Your task to perform on an android device: all mails in gmail Image 0: 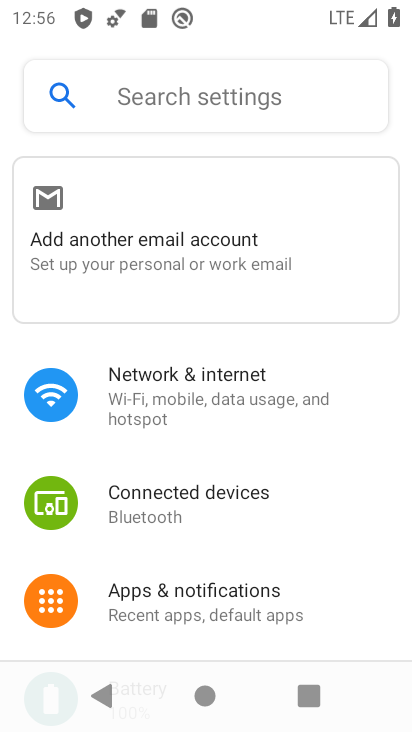
Step 0: press home button
Your task to perform on an android device: all mails in gmail Image 1: 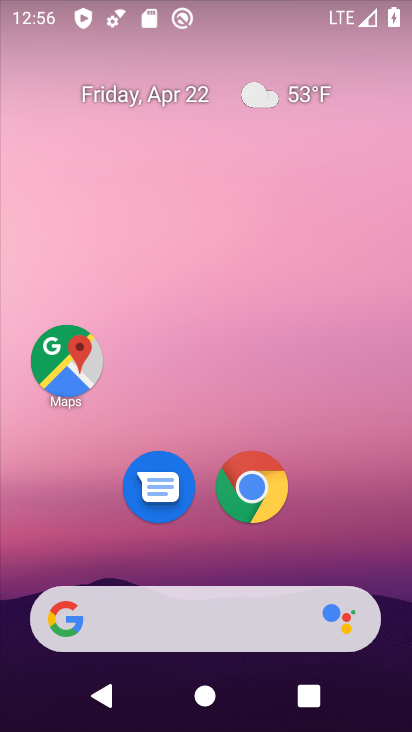
Step 1: drag from (182, 555) to (182, 64)
Your task to perform on an android device: all mails in gmail Image 2: 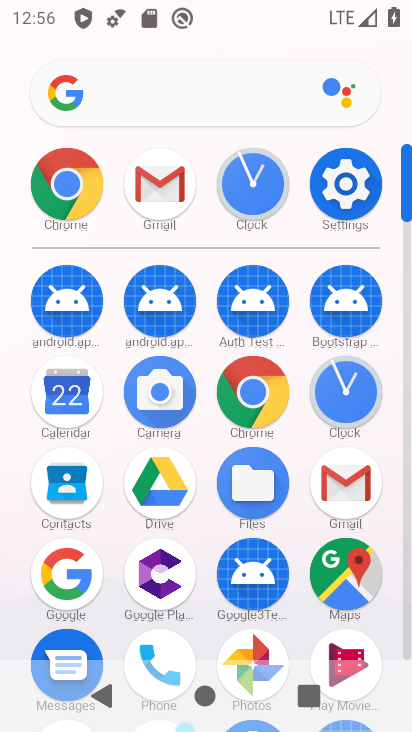
Step 2: click (135, 183)
Your task to perform on an android device: all mails in gmail Image 3: 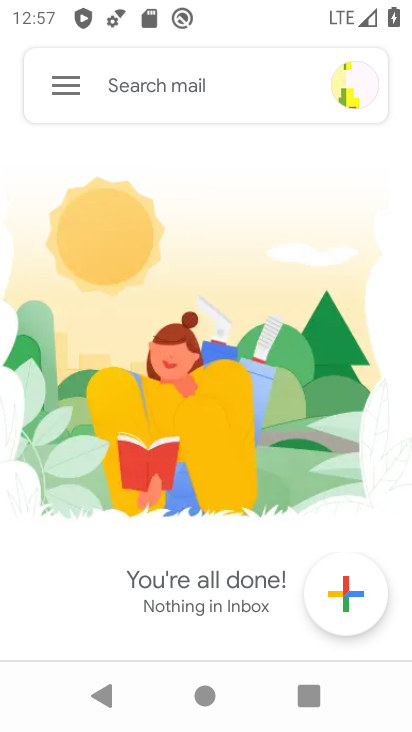
Step 3: click (54, 72)
Your task to perform on an android device: all mails in gmail Image 4: 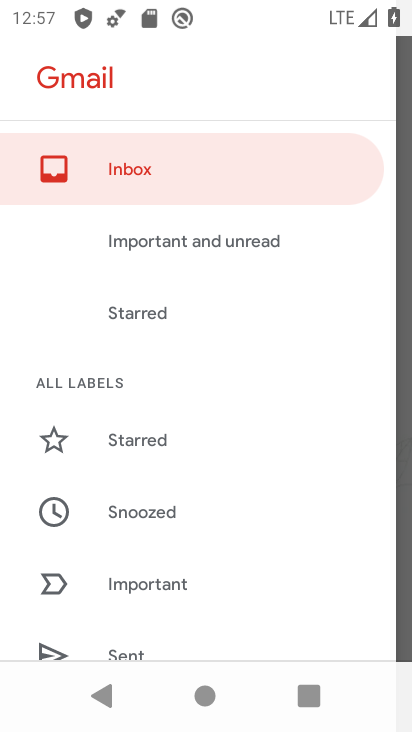
Step 4: drag from (100, 579) to (120, 281)
Your task to perform on an android device: all mails in gmail Image 5: 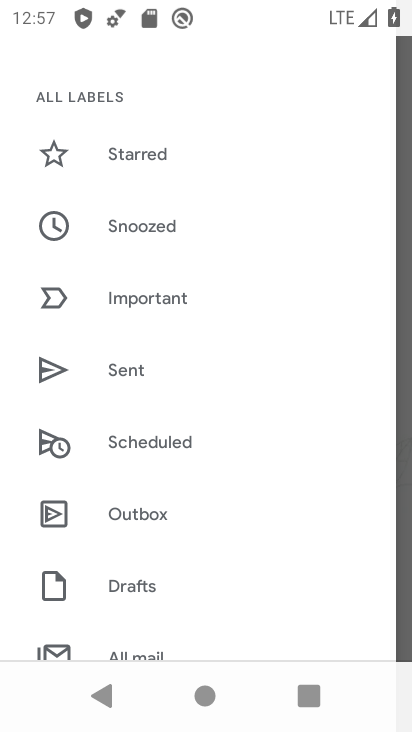
Step 5: drag from (139, 530) to (205, 144)
Your task to perform on an android device: all mails in gmail Image 6: 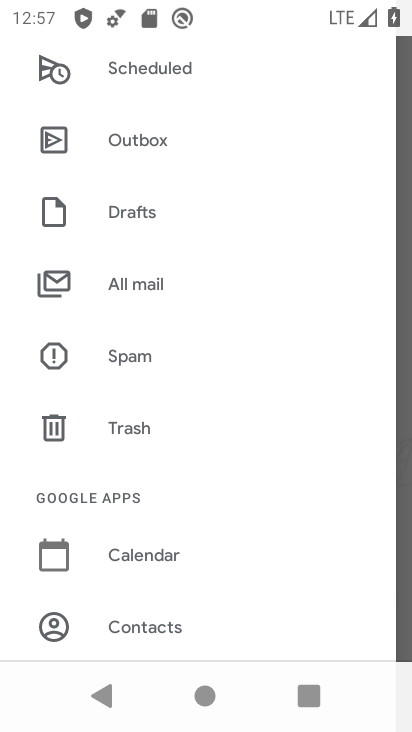
Step 6: click (180, 283)
Your task to perform on an android device: all mails in gmail Image 7: 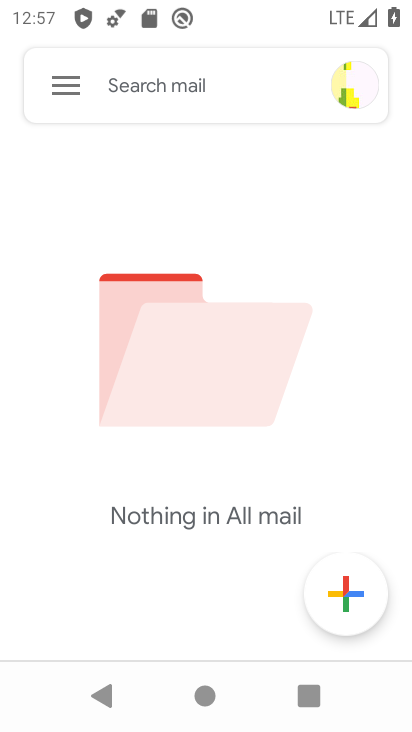
Step 7: task complete